Your task to perform on an android device: What's the weather today? Image 0: 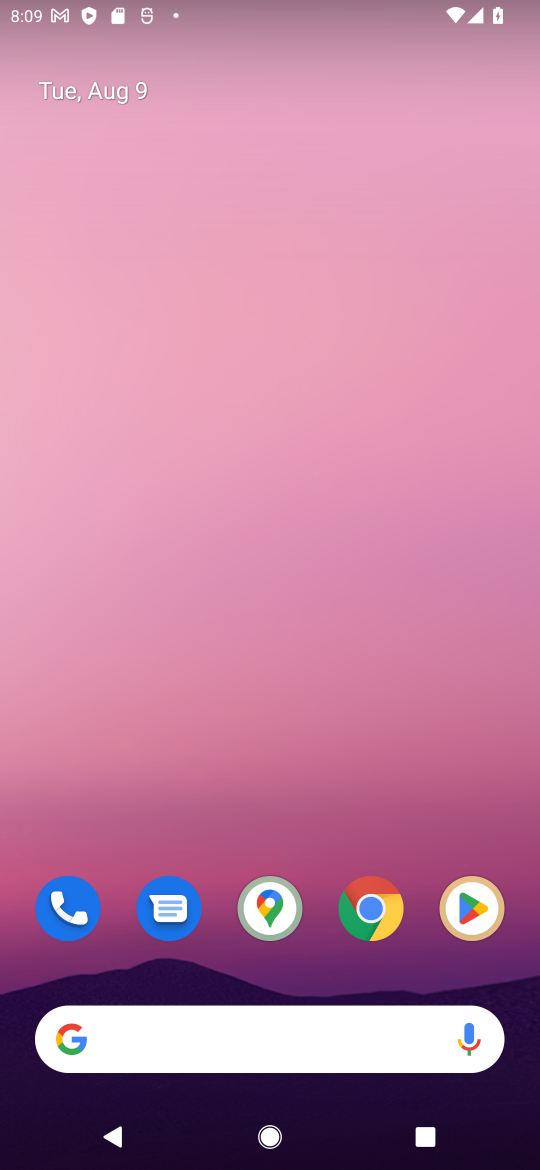
Step 0: drag from (327, 891) to (291, 246)
Your task to perform on an android device: What's the weather today? Image 1: 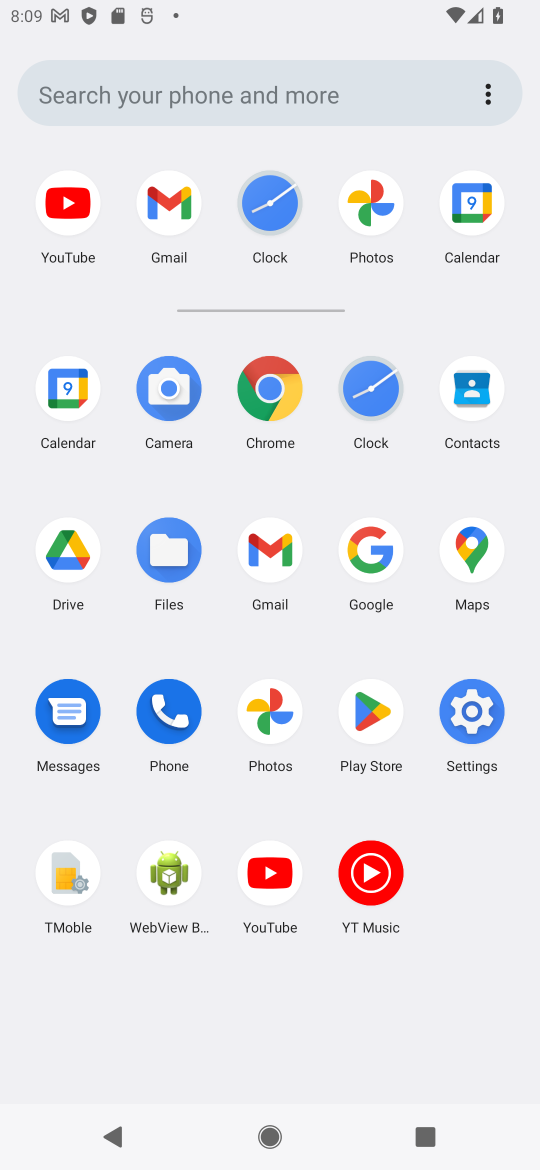
Step 1: click (382, 554)
Your task to perform on an android device: What's the weather today? Image 2: 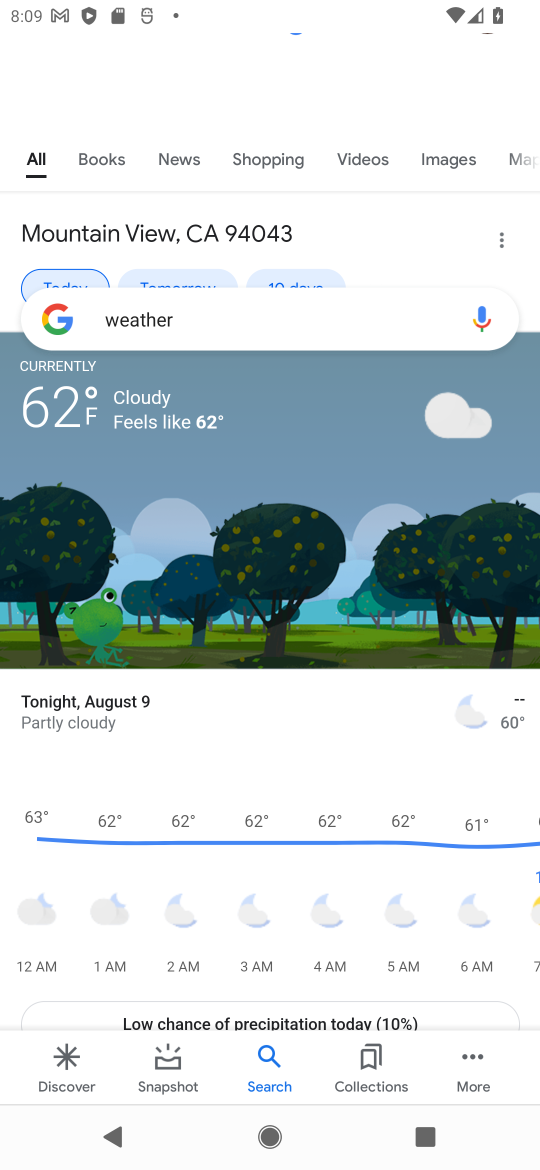
Step 2: click (57, 279)
Your task to perform on an android device: What's the weather today? Image 3: 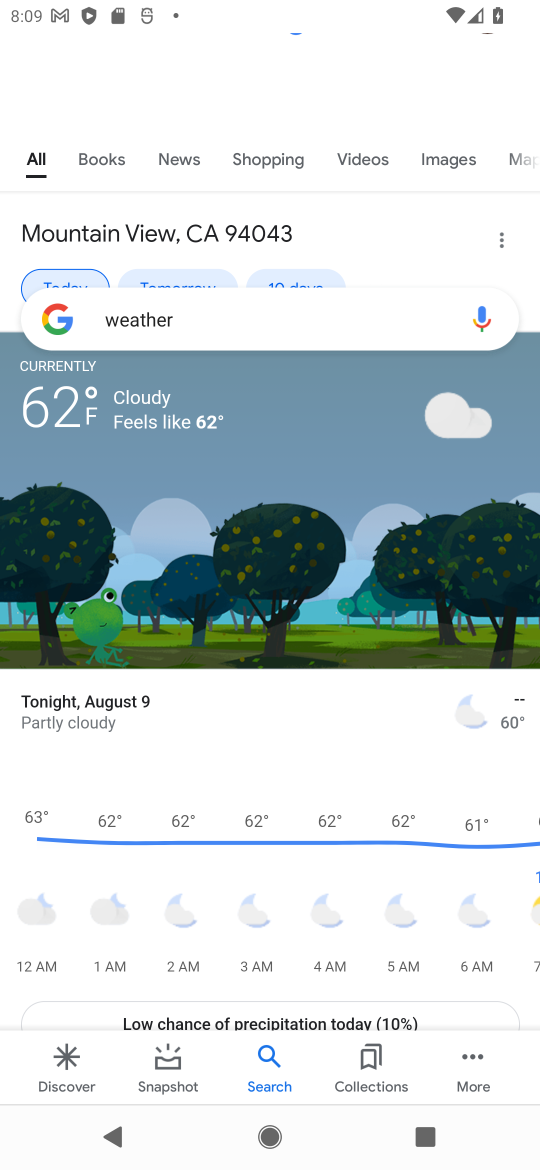
Step 3: click (75, 280)
Your task to perform on an android device: What's the weather today? Image 4: 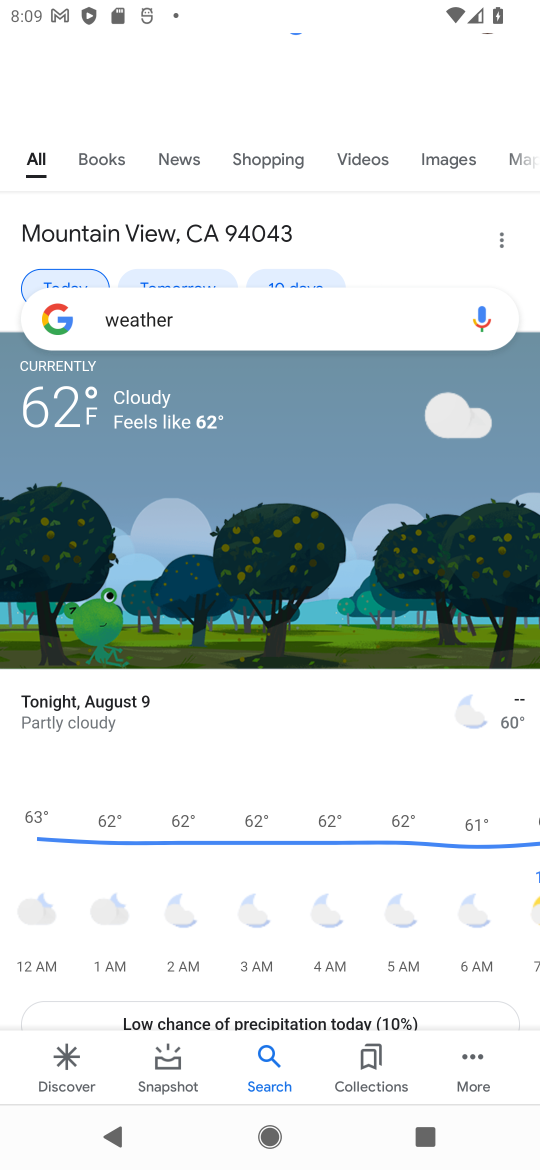
Step 4: task complete